Your task to perform on an android device: turn on location history Image 0: 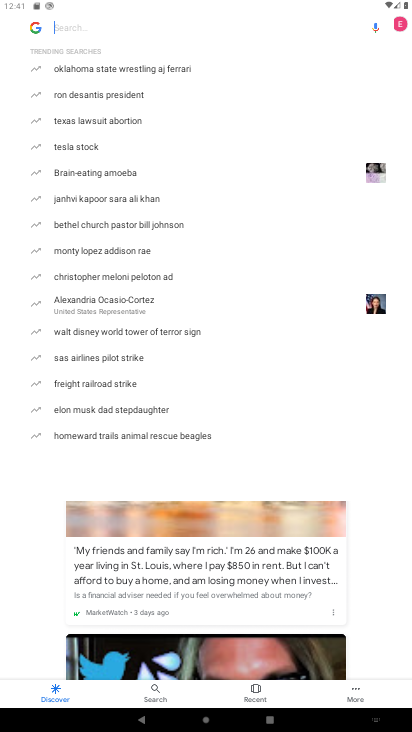
Step 0: press home button
Your task to perform on an android device: turn on location history Image 1: 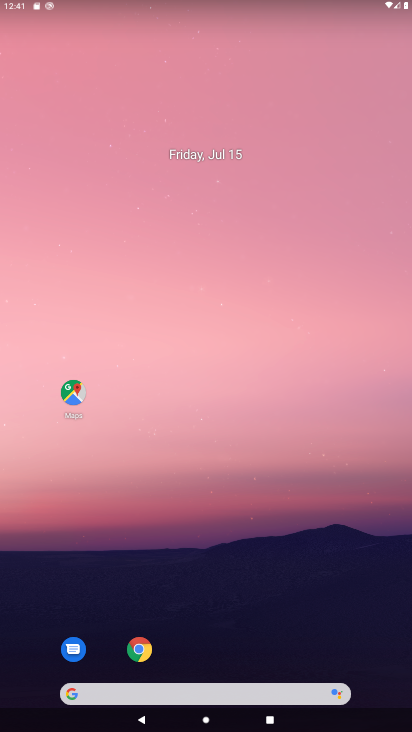
Step 1: drag from (191, 638) to (169, 152)
Your task to perform on an android device: turn on location history Image 2: 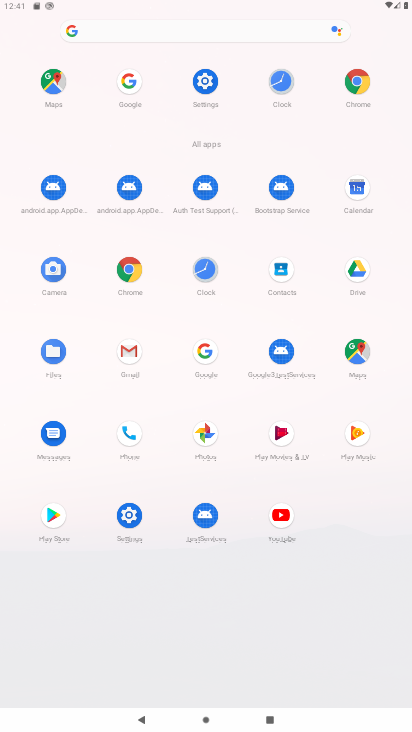
Step 2: click (197, 80)
Your task to perform on an android device: turn on location history Image 3: 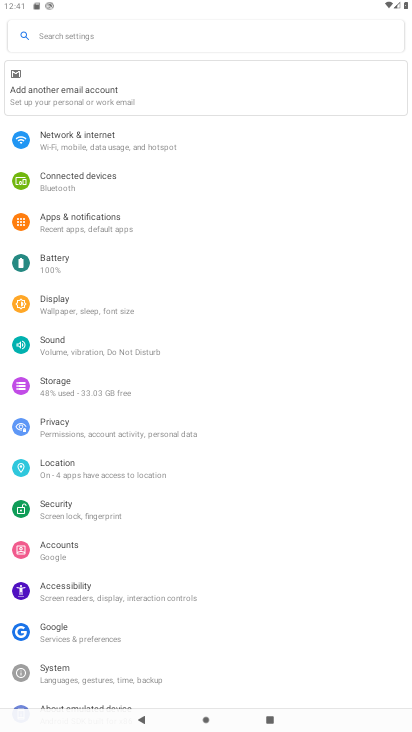
Step 3: click (69, 468)
Your task to perform on an android device: turn on location history Image 4: 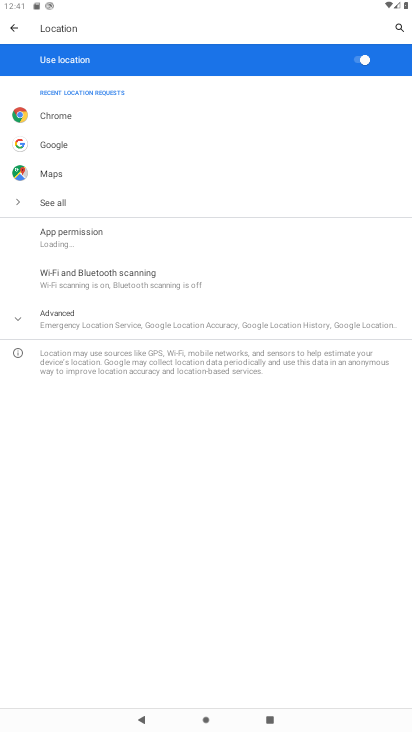
Step 4: click (118, 312)
Your task to perform on an android device: turn on location history Image 5: 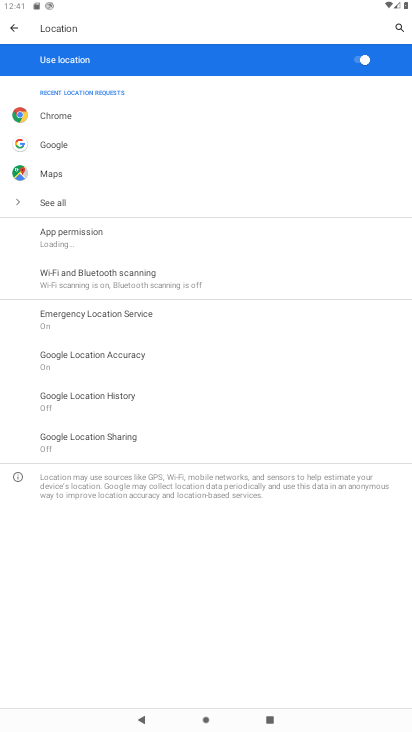
Step 5: click (133, 401)
Your task to perform on an android device: turn on location history Image 6: 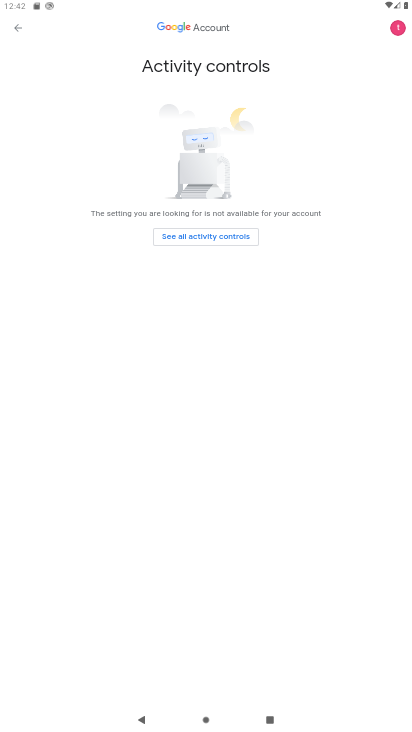
Step 6: click (221, 234)
Your task to perform on an android device: turn on location history Image 7: 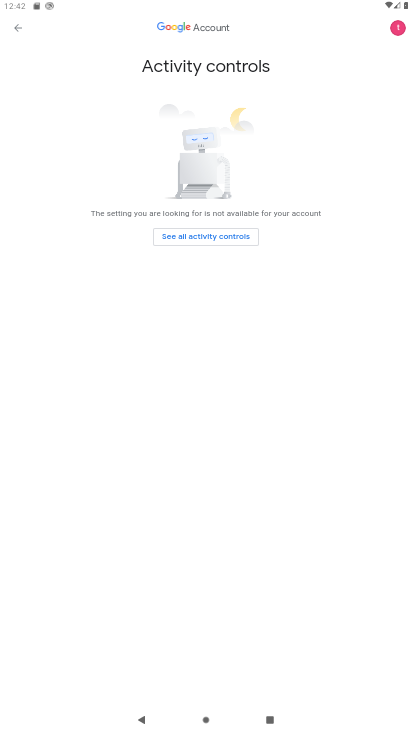
Step 7: click (219, 234)
Your task to perform on an android device: turn on location history Image 8: 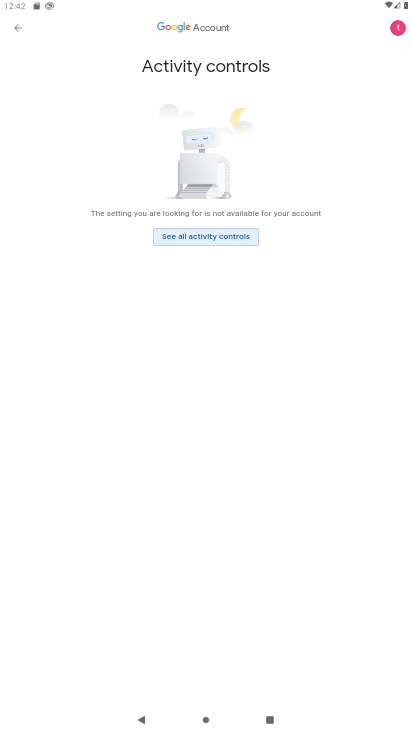
Step 8: click (208, 234)
Your task to perform on an android device: turn on location history Image 9: 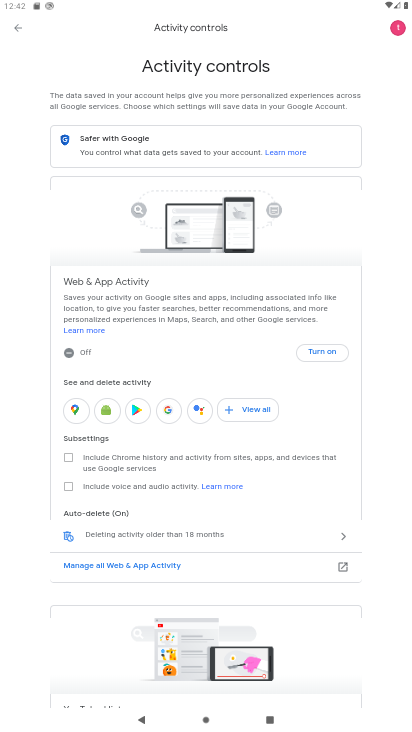
Step 9: click (326, 348)
Your task to perform on an android device: turn on location history Image 10: 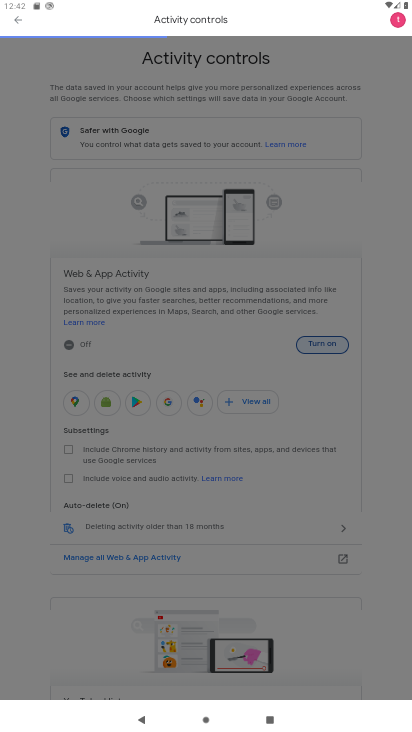
Step 10: click (324, 357)
Your task to perform on an android device: turn on location history Image 11: 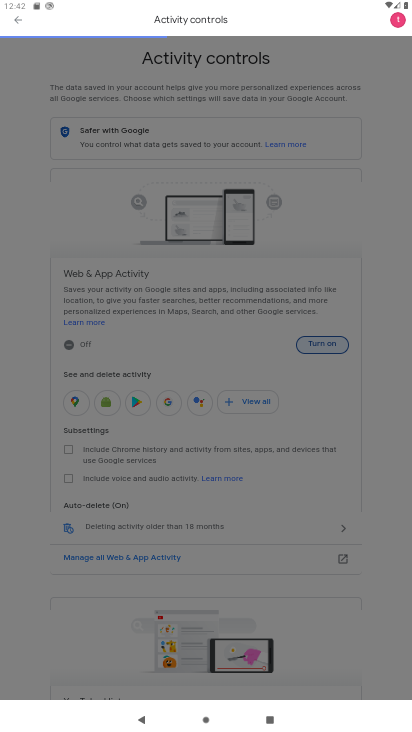
Step 11: click (324, 348)
Your task to perform on an android device: turn on location history Image 12: 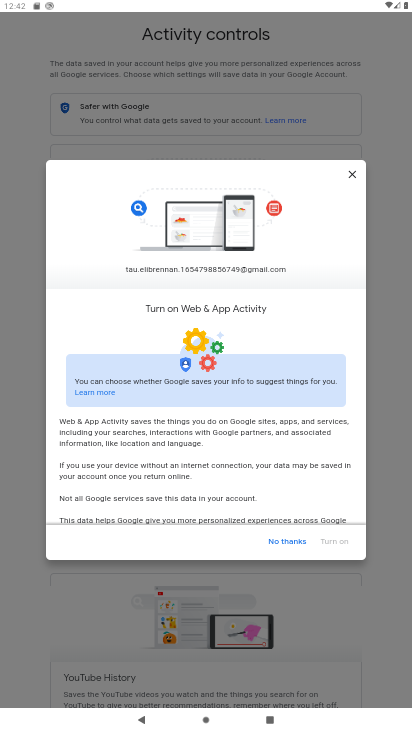
Step 12: click (286, 537)
Your task to perform on an android device: turn on location history Image 13: 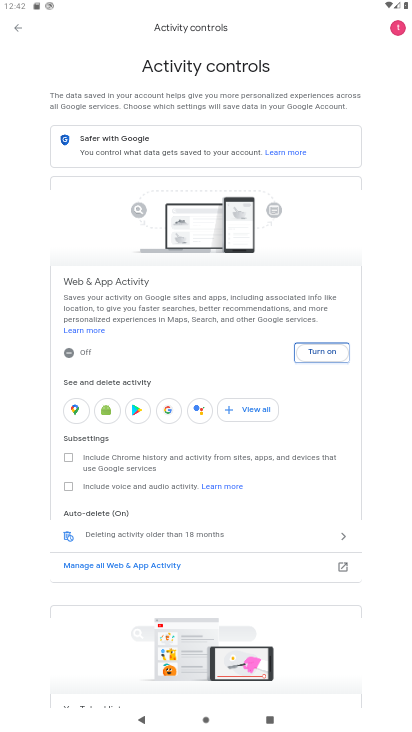
Step 13: task complete